Your task to perform on an android device: Go to Google maps Image 0: 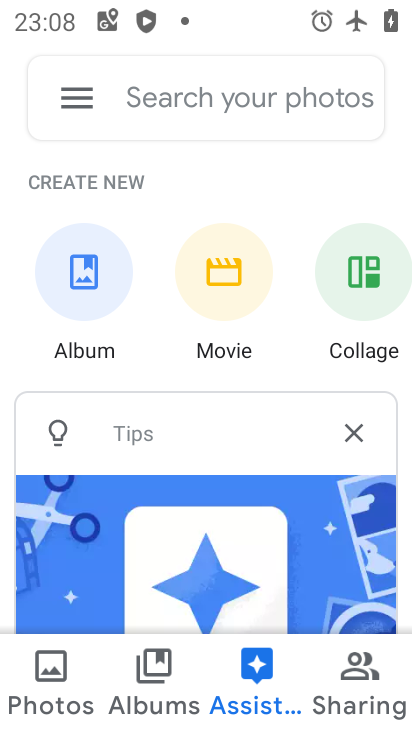
Step 0: press home button
Your task to perform on an android device: Go to Google maps Image 1: 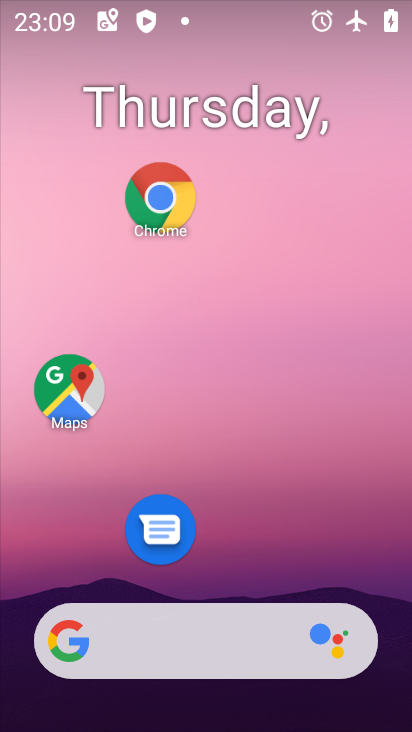
Step 1: click (59, 395)
Your task to perform on an android device: Go to Google maps Image 2: 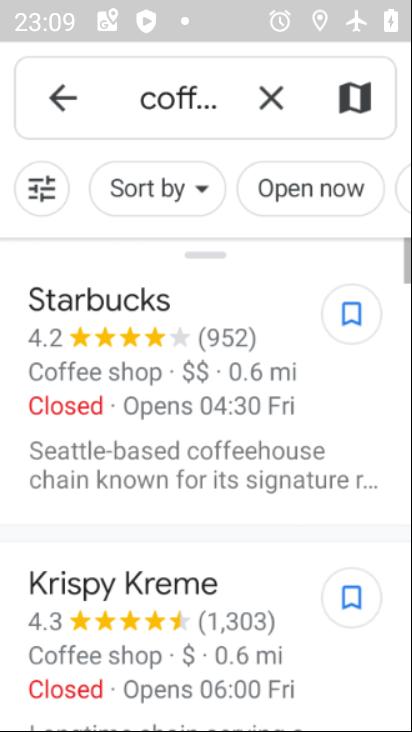
Step 2: click (266, 100)
Your task to perform on an android device: Go to Google maps Image 3: 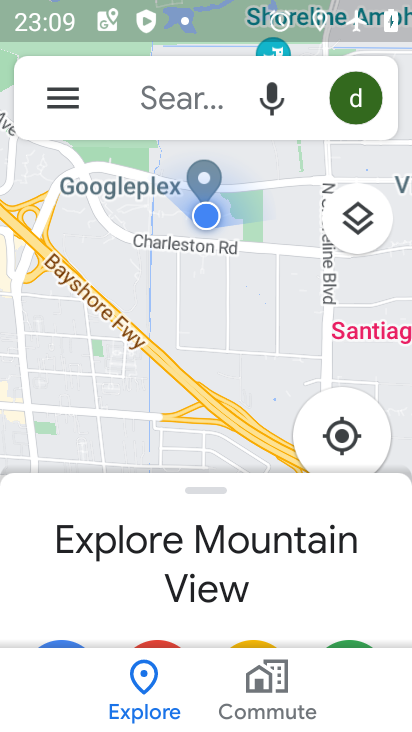
Step 3: task complete